Your task to perform on an android device: show emergency info Image 0: 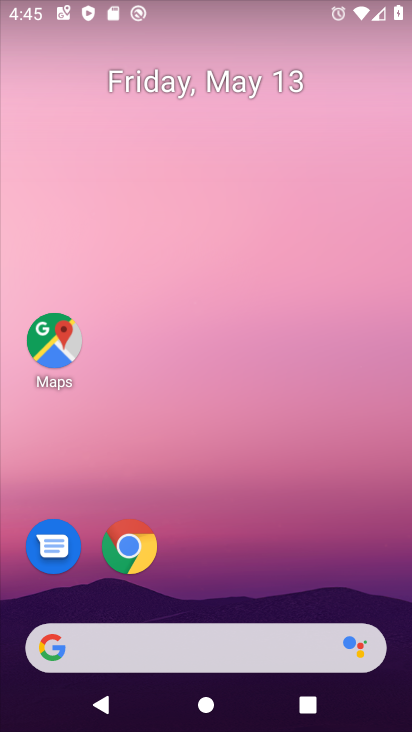
Step 0: drag from (213, 582) to (362, 19)
Your task to perform on an android device: show emergency info Image 1: 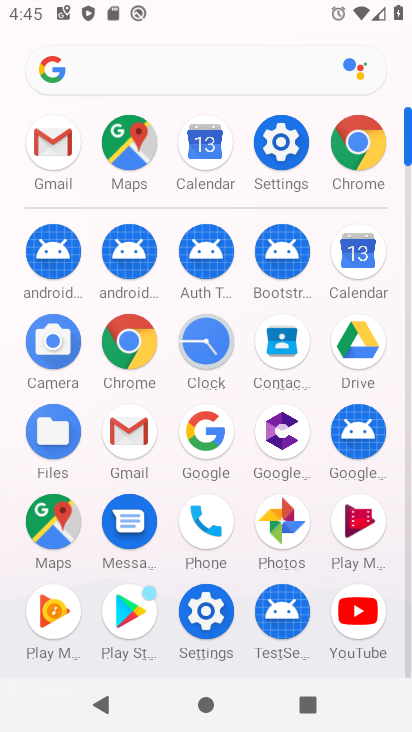
Step 1: click (283, 151)
Your task to perform on an android device: show emergency info Image 2: 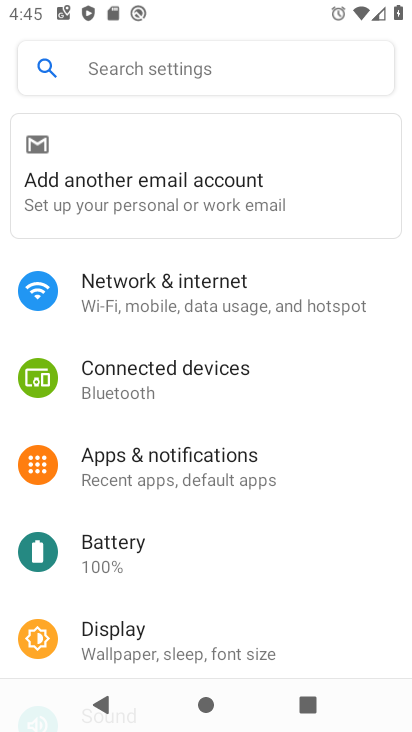
Step 2: drag from (205, 570) to (303, 56)
Your task to perform on an android device: show emergency info Image 3: 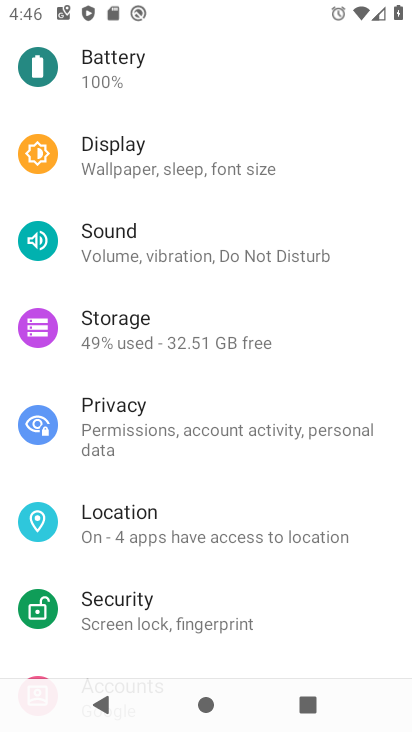
Step 3: drag from (159, 546) to (237, 33)
Your task to perform on an android device: show emergency info Image 4: 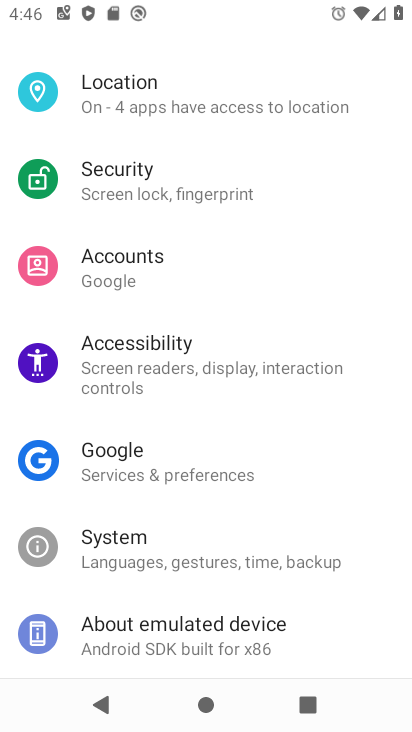
Step 4: drag from (188, 595) to (242, 210)
Your task to perform on an android device: show emergency info Image 5: 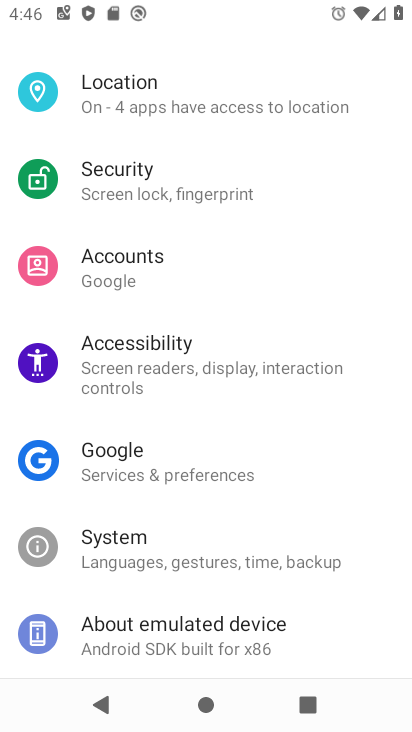
Step 5: click (177, 643)
Your task to perform on an android device: show emergency info Image 6: 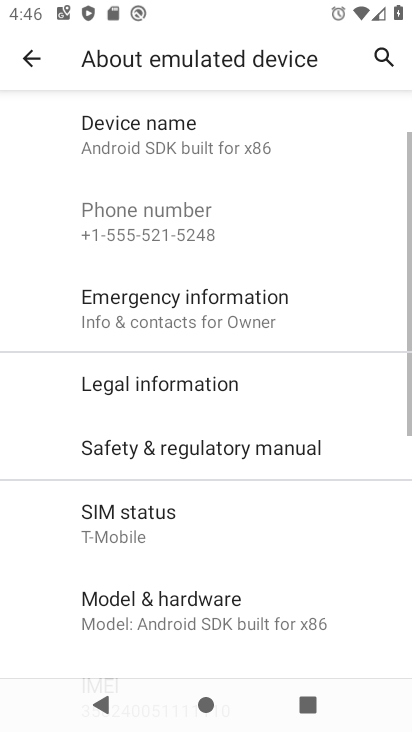
Step 6: click (173, 320)
Your task to perform on an android device: show emergency info Image 7: 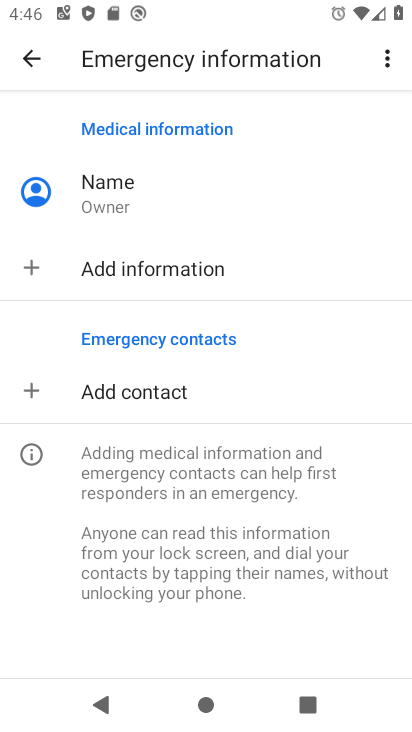
Step 7: task complete